Your task to perform on an android device: open app "Paramount+ | Peak Streaming" (install if not already installed) and enter user name: "fostered@yahoo.com" and password: "strong" Image 0: 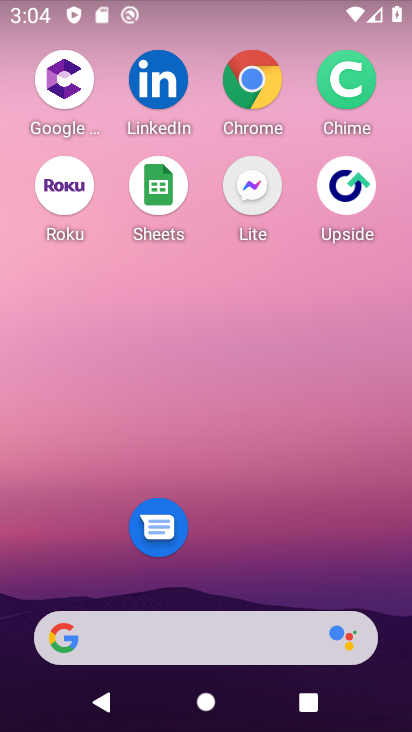
Step 0: drag from (271, 582) to (251, 46)
Your task to perform on an android device: open app "Paramount+ | Peak Streaming" (install if not already installed) and enter user name: "fostered@yahoo.com" and password: "strong" Image 1: 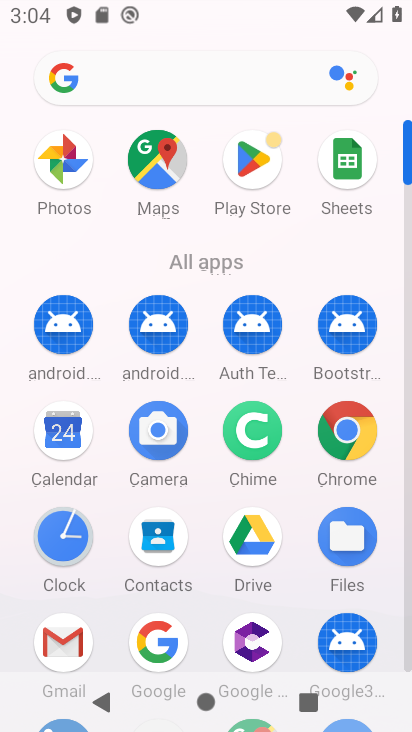
Step 1: click (240, 185)
Your task to perform on an android device: open app "Paramount+ | Peak Streaming" (install if not already installed) and enter user name: "fostered@yahoo.com" and password: "strong" Image 2: 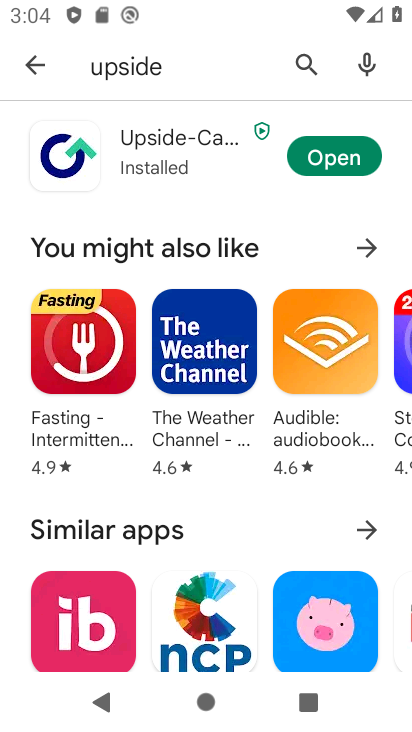
Step 2: click (296, 63)
Your task to perform on an android device: open app "Paramount+ | Peak Streaming" (install if not already installed) and enter user name: "fostered@yahoo.com" and password: "strong" Image 3: 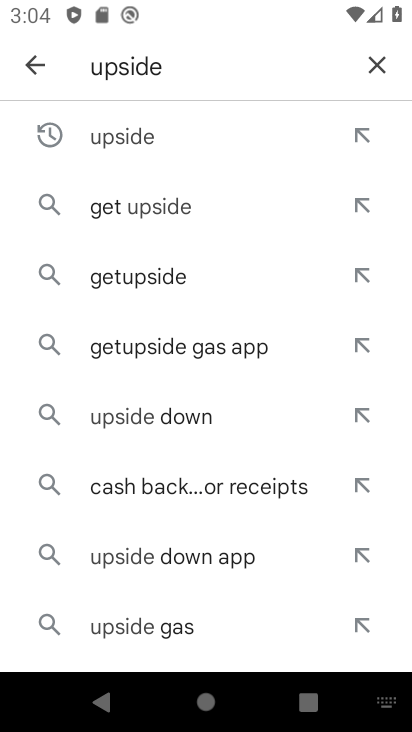
Step 3: click (381, 62)
Your task to perform on an android device: open app "Paramount+ | Peak Streaming" (install if not already installed) and enter user name: "fostered@yahoo.com" and password: "strong" Image 4: 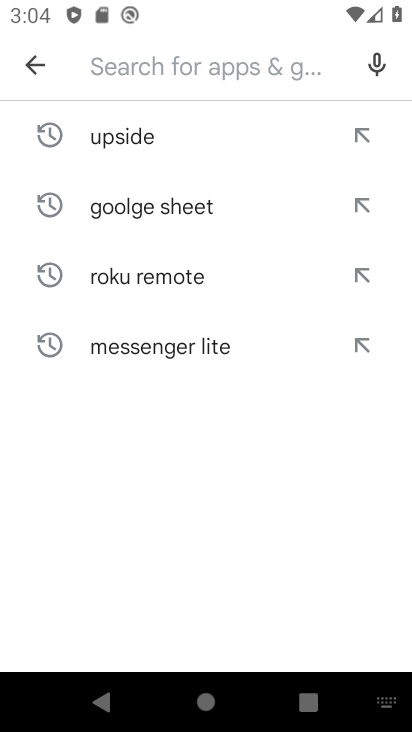
Step 4: type ""
Your task to perform on an android device: open app "Paramount+ | Peak Streaming" (install if not already installed) and enter user name: "fostered@yahoo.com" and password: "strong" Image 5: 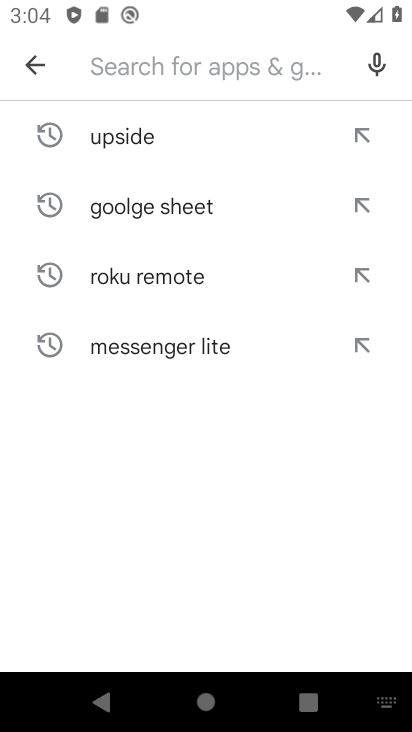
Step 5: type "paramount"
Your task to perform on an android device: open app "Paramount+ | Peak Streaming" (install if not already installed) and enter user name: "fostered@yahoo.com" and password: "strong" Image 6: 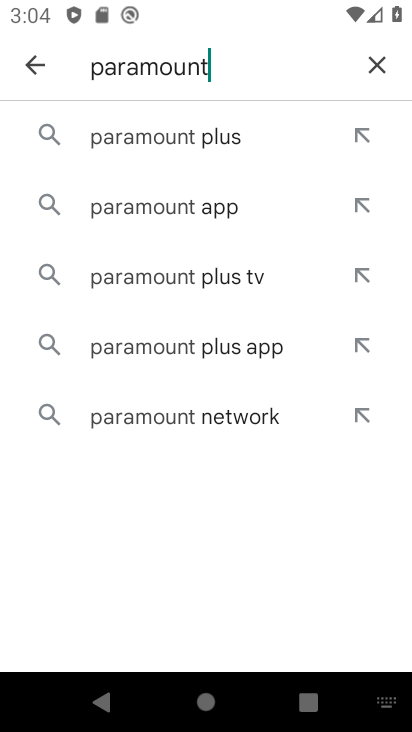
Step 6: click (187, 145)
Your task to perform on an android device: open app "Paramount+ | Peak Streaming" (install if not already installed) and enter user name: "fostered@yahoo.com" and password: "strong" Image 7: 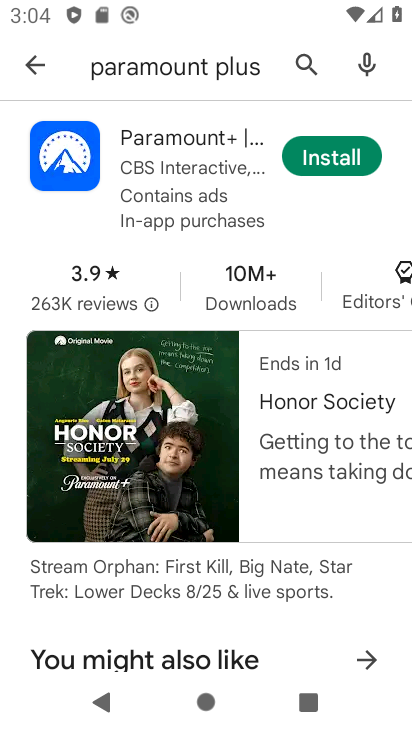
Step 7: click (309, 144)
Your task to perform on an android device: open app "Paramount+ | Peak Streaming" (install if not already installed) and enter user name: "fostered@yahoo.com" and password: "strong" Image 8: 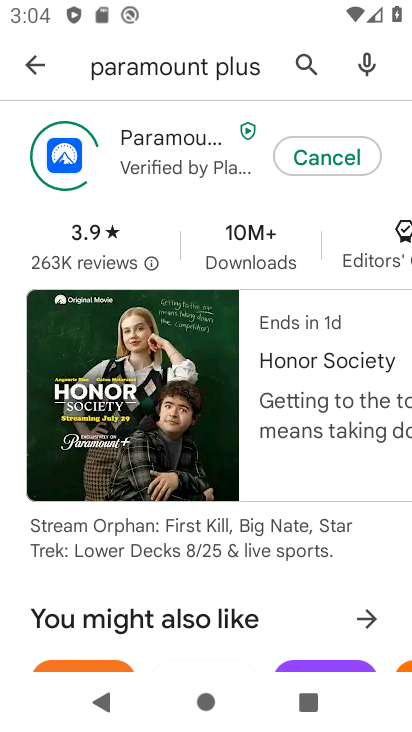
Step 8: task complete